Your task to perform on an android device: Do I have any events tomorrow? Image 0: 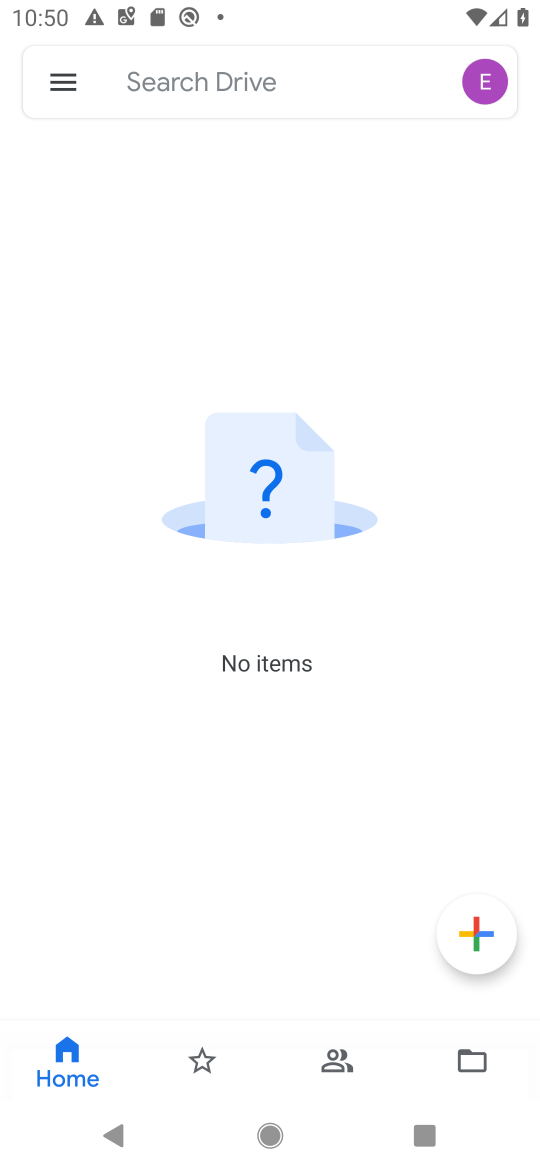
Step 0: press home button
Your task to perform on an android device: Do I have any events tomorrow? Image 1: 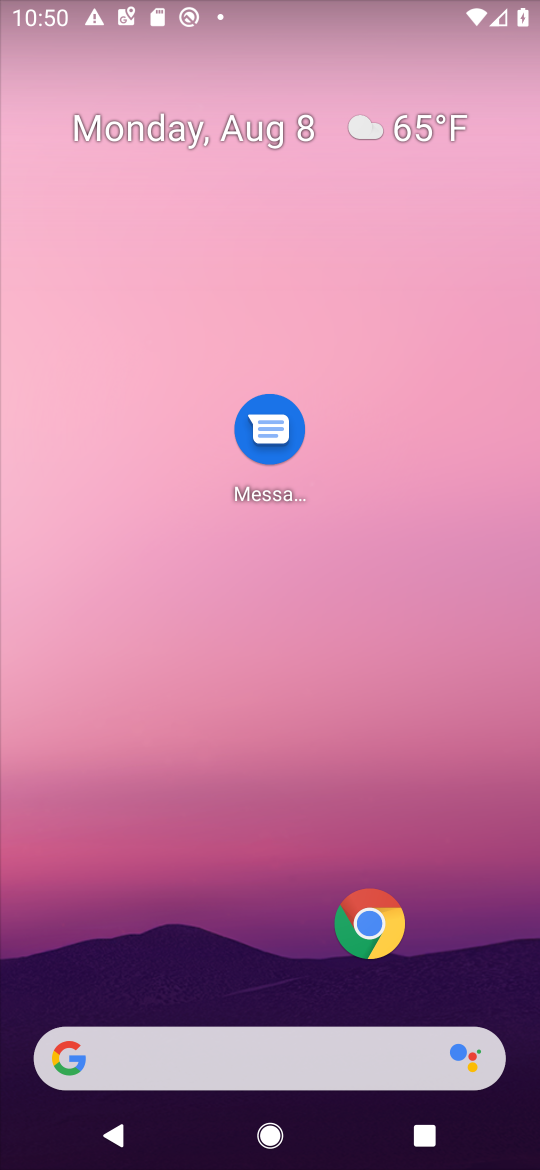
Step 1: drag from (48, 1117) to (356, 256)
Your task to perform on an android device: Do I have any events tomorrow? Image 2: 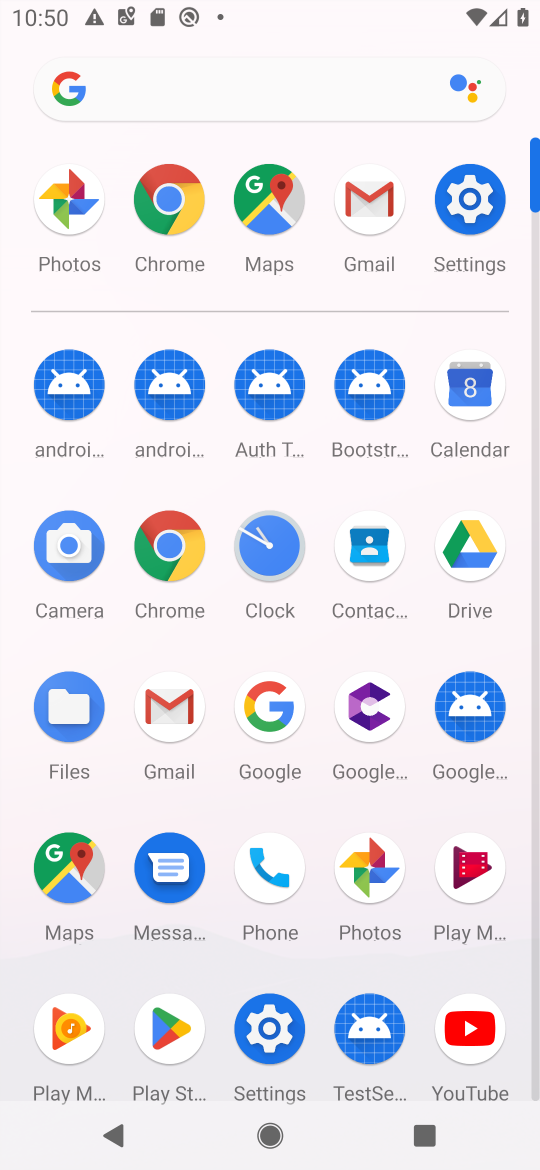
Step 2: click (476, 429)
Your task to perform on an android device: Do I have any events tomorrow? Image 3: 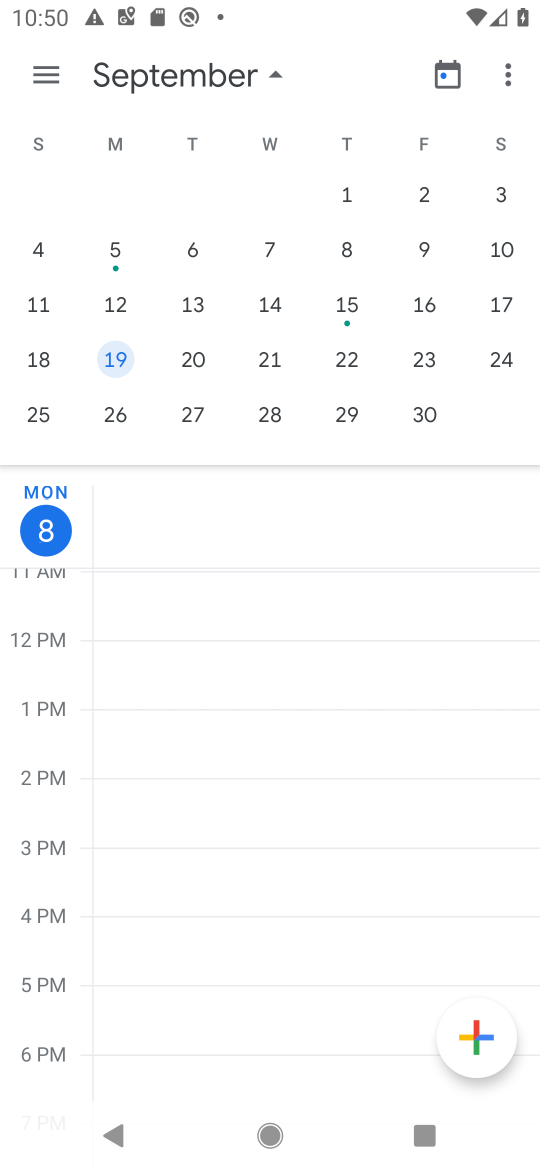
Step 3: drag from (16, 188) to (500, 238)
Your task to perform on an android device: Do I have any events tomorrow? Image 4: 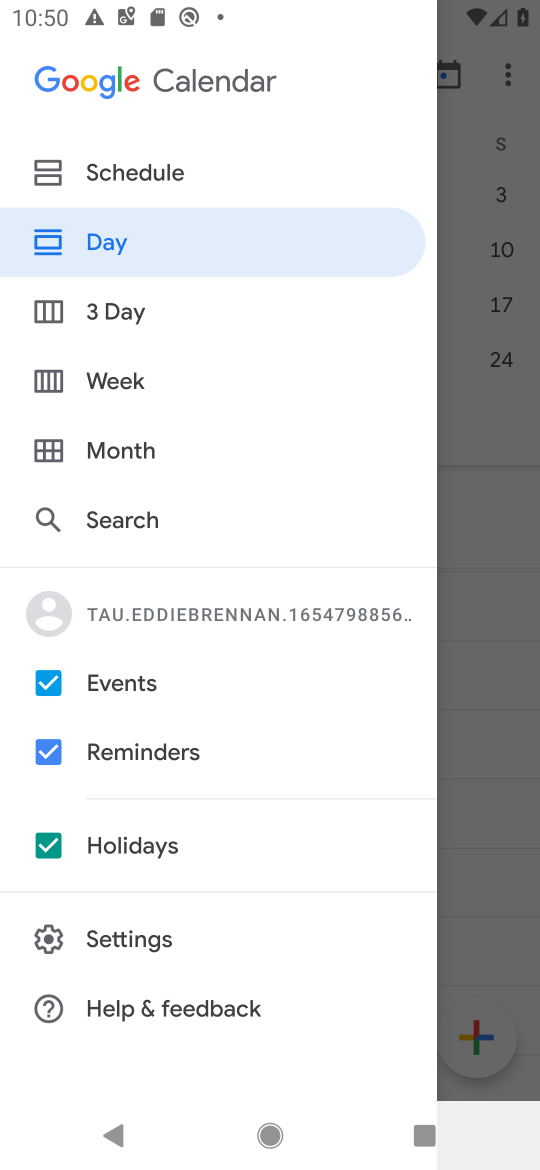
Step 4: click (438, 563)
Your task to perform on an android device: Do I have any events tomorrow? Image 5: 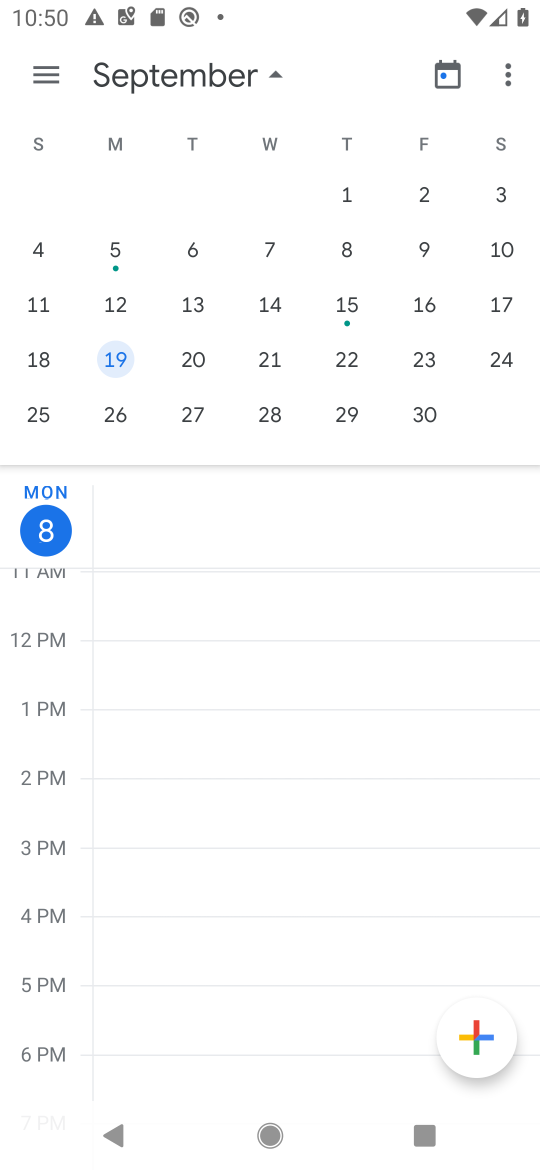
Step 5: click (484, 521)
Your task to perform on an android device: Do I have any events tomorrow? Image 6: 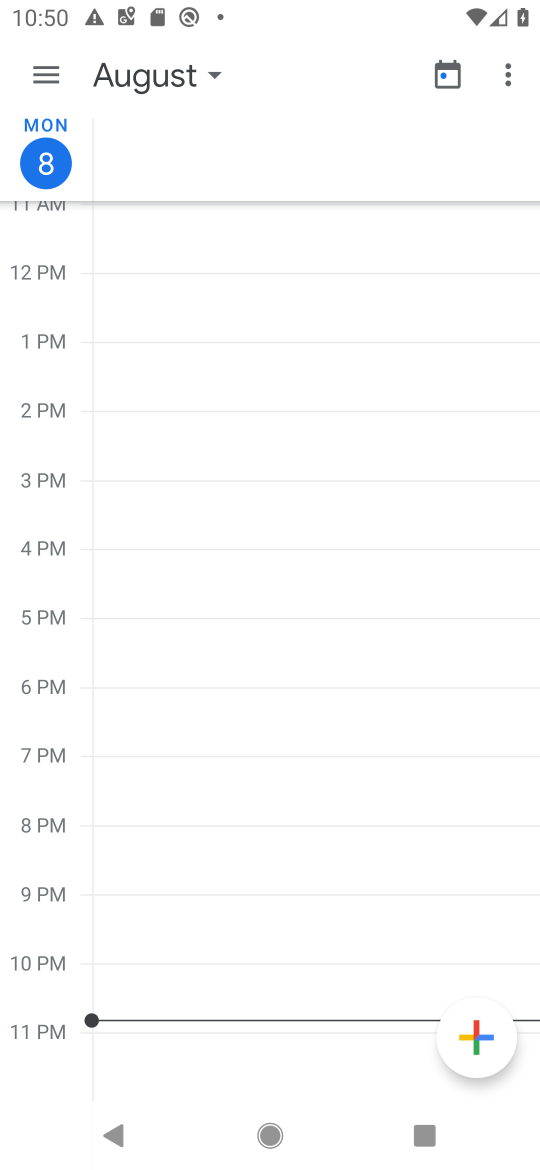
Step 6: drag from (21, 193) to (531, 308)
Your task to perform on an android device: Do I have any events tomorrow? Image 7: 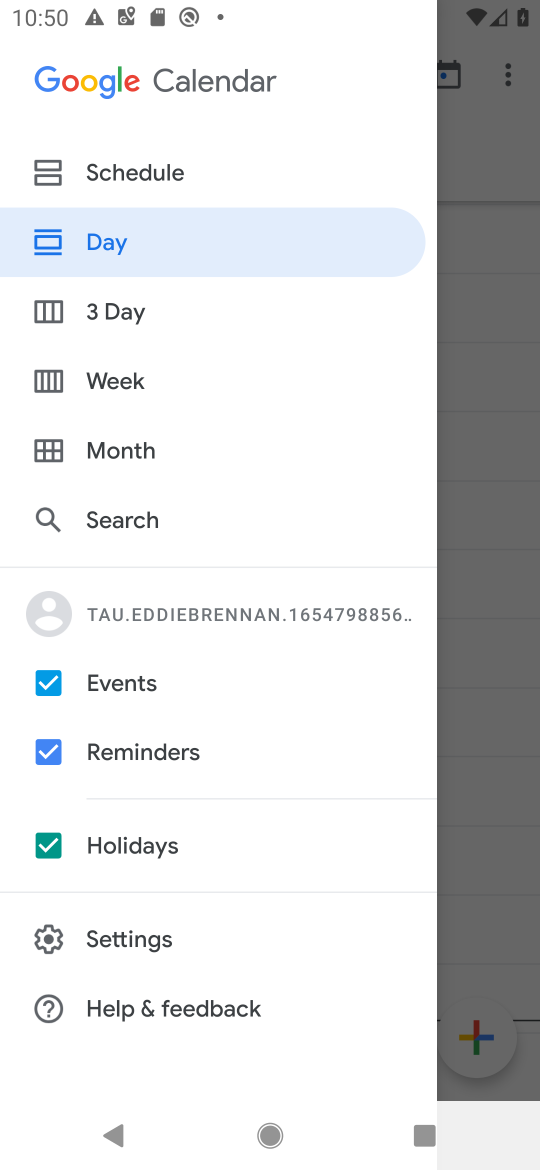
Step 7: click (507, 529)
Your task to perform on an android device: Do I have any events tomorrow? Image 8: 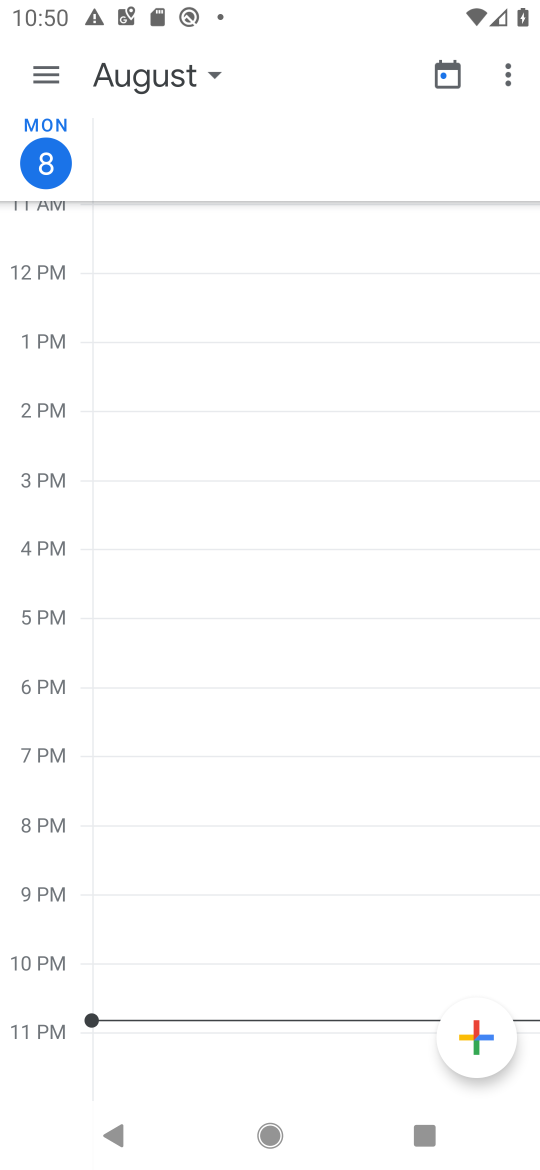
Step 8: click (197, 76)
Your task to perform on an android device: Do I have any events tomorrow? Image 9: 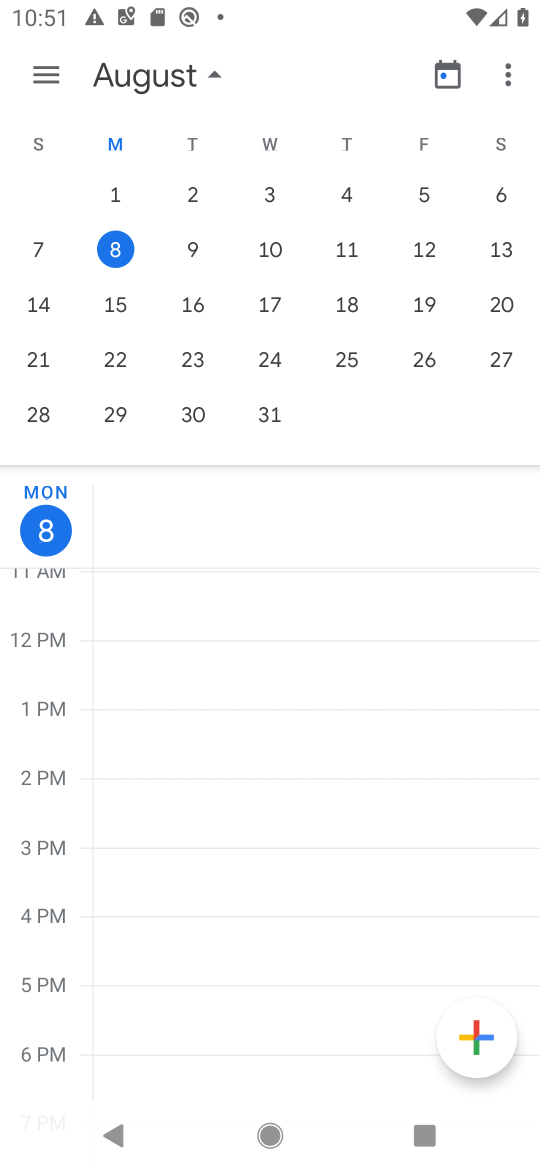
Step 9: task complete